Your task to perform on an android device: Open Wikipedia Image 0: 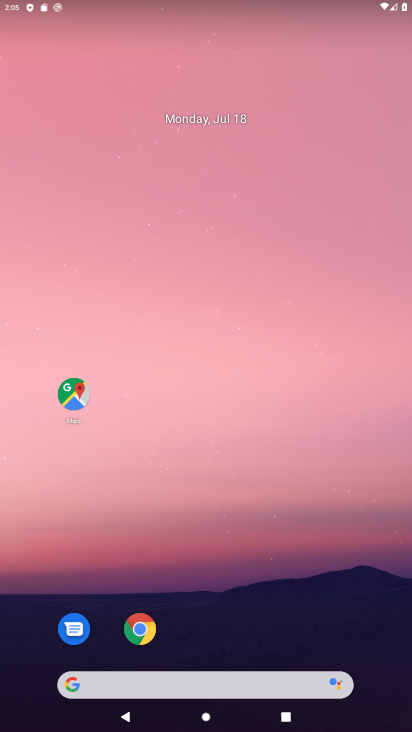
Step 0: click (145, 637)
Your task to perform on an android device: Open Wikipedia Image 1: 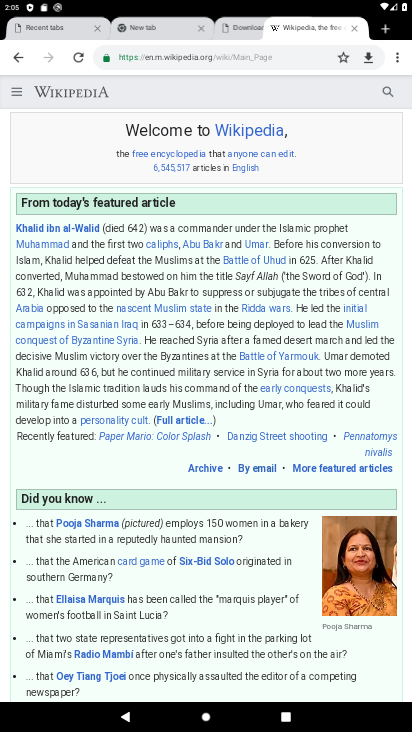
Step 1: click (384, 30)
Your task to perform on an android device: Open Wikipedia Image 2: 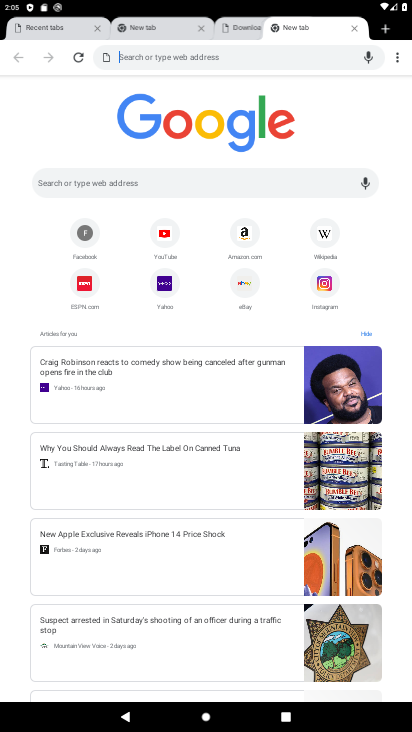
Step 2: click (324, 239)
Your task to perform on an android device: Open Wikipedia Image 3: 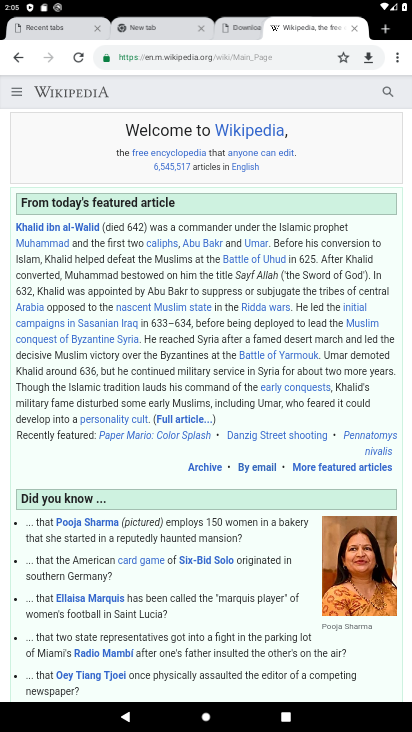
Step 3: task complete